Your task to perform on an android device: Search for Mexican restaurants on Maps Image 0: 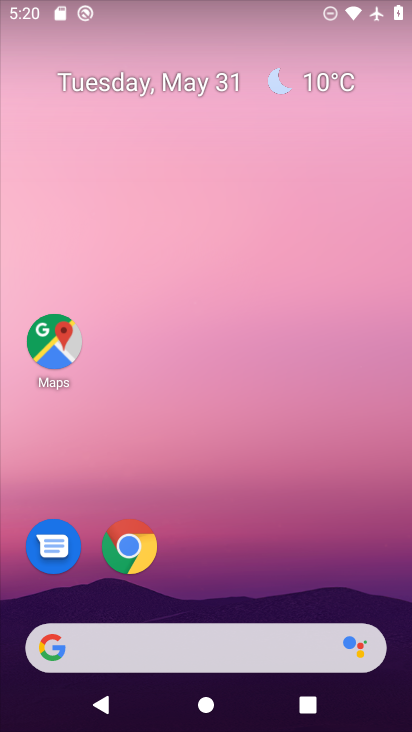
Step 0: click (79, 339)
Your task to perform on an android device: Search for Mexican restaurants on Maps Image 1: 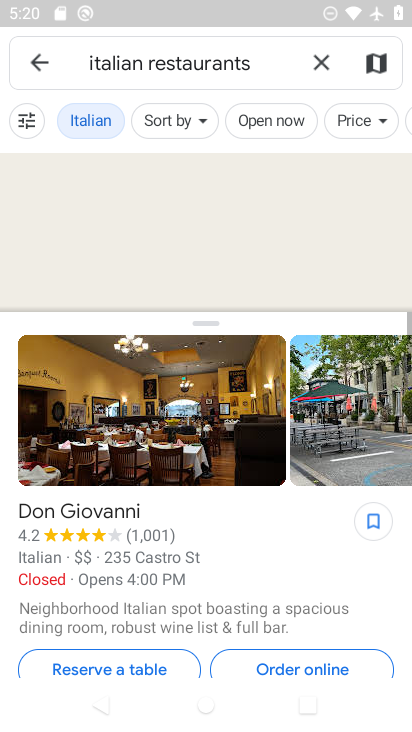
Step 1: click (315, 61)
Your task to perform on an android device: Search for Mexican restaurants on Maps Image 2: 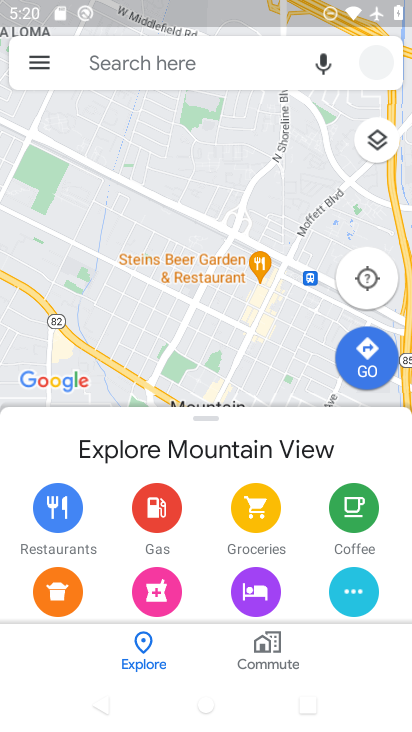
Step 2: click (186, 59)
Your task to perform on an android device: Search for Mexican restaurants on Maps Image 3: 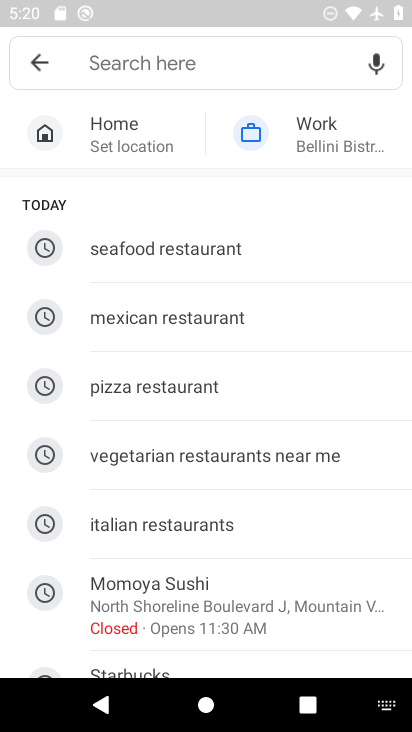
Step 3: drag from (210, 574) to (207, 223)
Your task to perform on an android device: Search for Mexican restaurants on Maps Image 4: 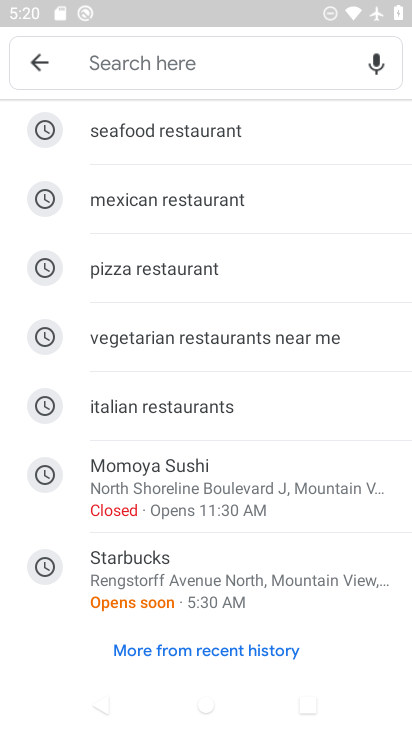
Step 4: drag from (202, 238) to (210, 619)
Your task to perform on an android device: Search for Mexican restaurants on Maps Image 5: 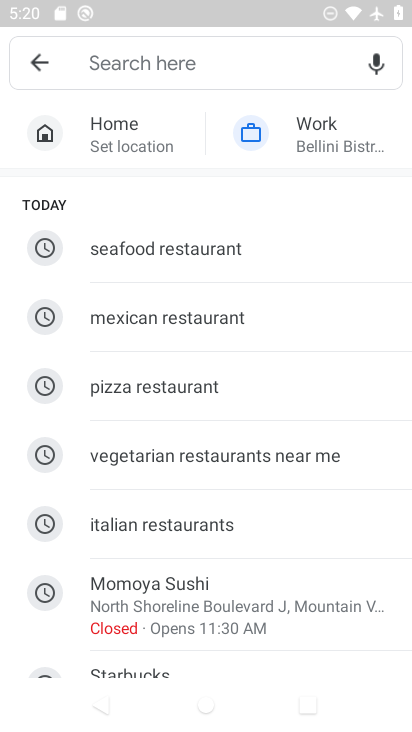
Step 5: click (157, 51)
Your task to perform on an android device: Search for Mexican restaurants on Maps Image 6: 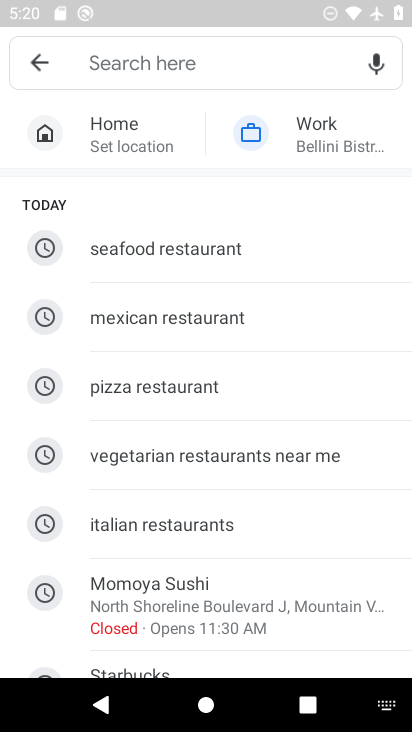
Step 6: type "mexican restaurants"
Your task to perform on an android device: Search for Mexican restaurants on Maps Image 7: 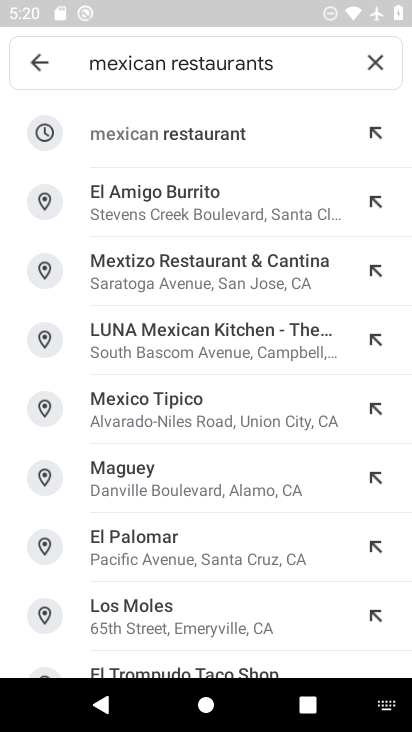
Step 7: click (181, 137)
Your task to perform on an android device: Search for Mexican restaurants on Maps Image 8: 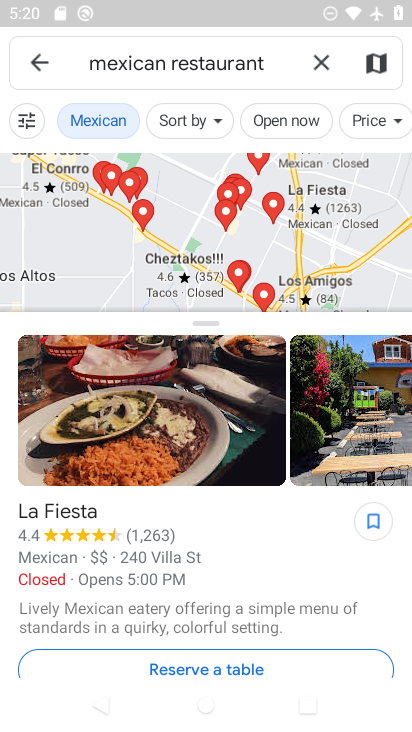
Step 8: task complete